Your task to perform on an android device: allow notifications from all sites in the chrome app Image 0: 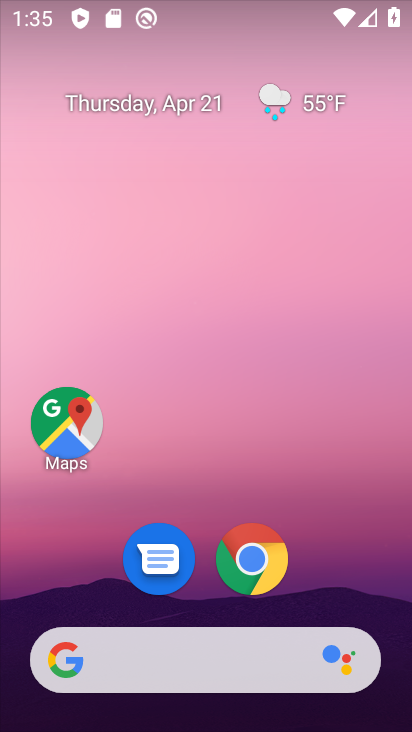
Step 0: click (258, 577)
Your task to perform on an android device: allow notifications from all sites in the chrome app Image 1: 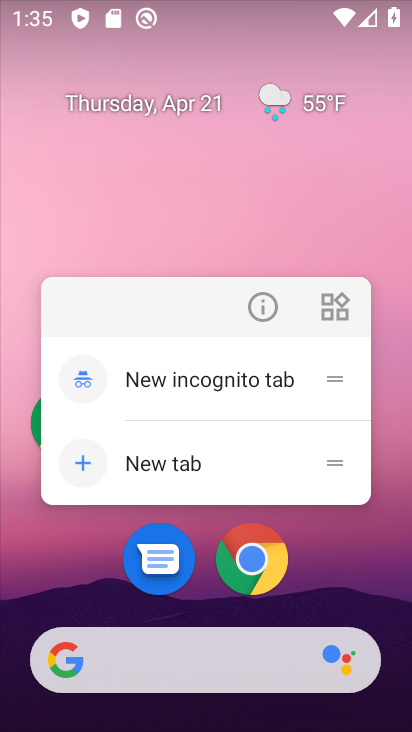
Step 1: click (259, 566)
Your task to perform on an android device: allow notifications from all sites in the chrome app Image 2: 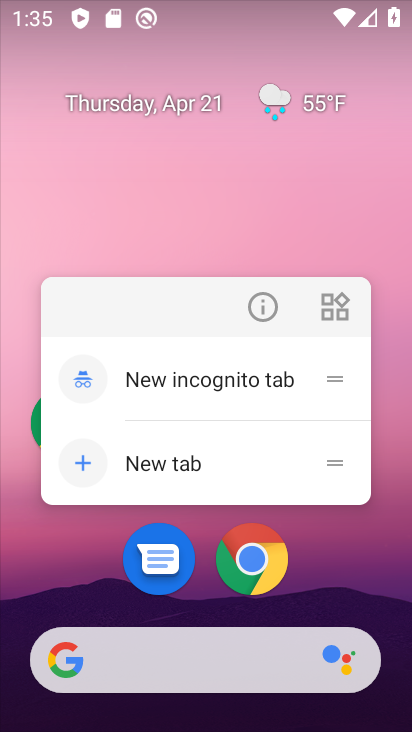
Step 2: click (259, 566)
Your task to perform on an android device: allow notifications from all sites in the chrome app Image 3: 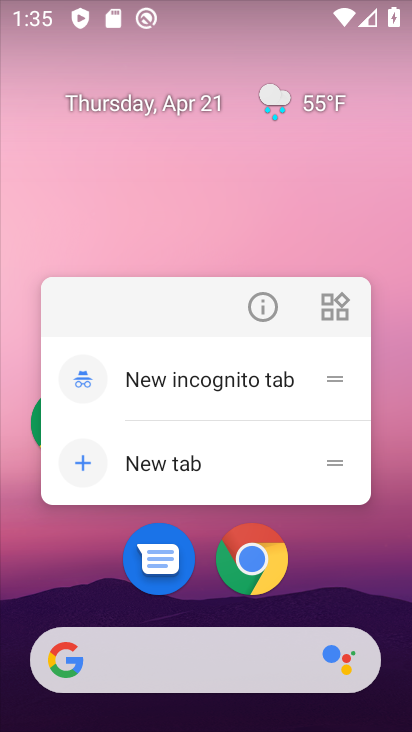
Step 3: click (259, 566)
Your task to perform on an android device: allow notifications from all sites in the chrome app Image 4: 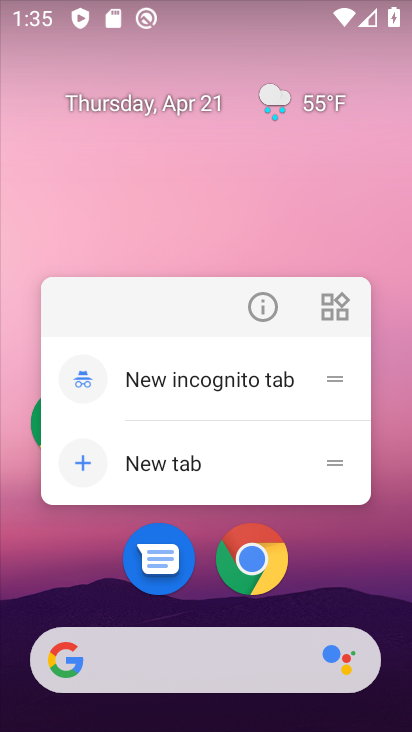
Step 4: click (233, 563)
Your task to perform on an android device: allow notifications from all sites in the chrome app Image 5: 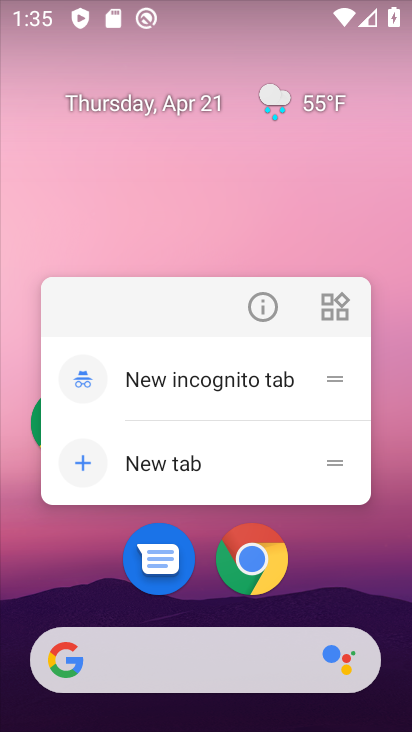
Step 5: click (248, 554)
Your task to perform on an android device: allow notifications from all sites in the chrome app Image 6: 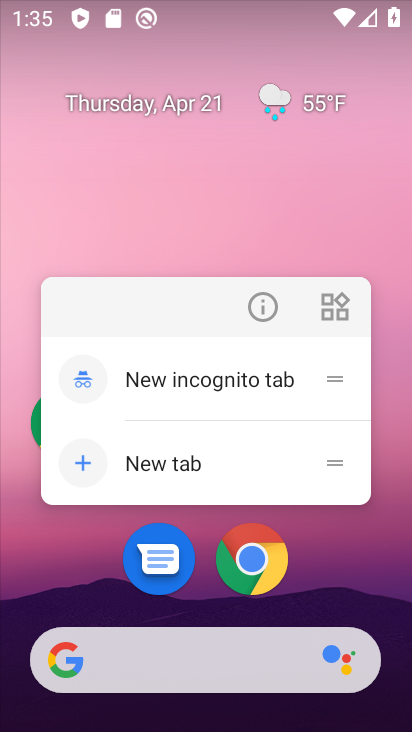
Step 6: click (248, 554)
Your task to perform on an android device: allow notifications from all sites in the chrome app Image 7: 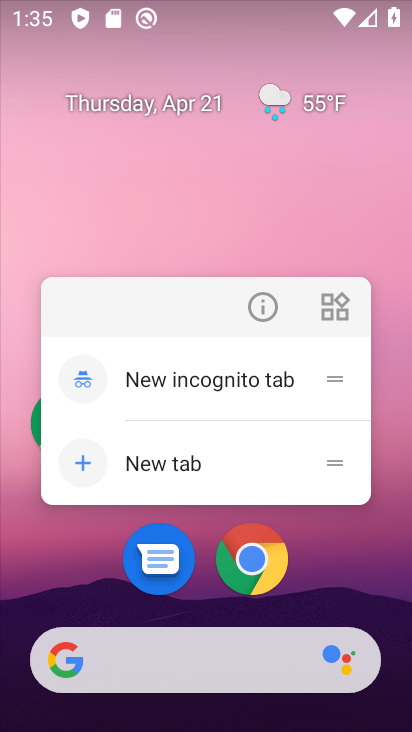
Step 7: click (269, 550)
Your task to perform on an android device: allow notifications from all sites in the chrome app Image 8: 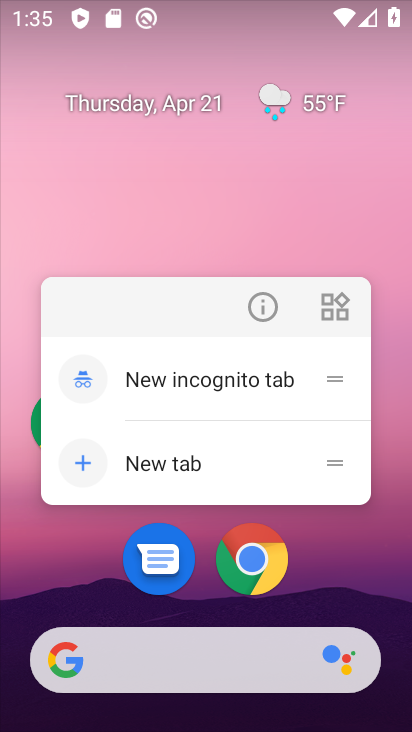
Step 8: click (269, 549)
Your task to perform on an android device: allow notifications from all sites in the chrome app Image 9: 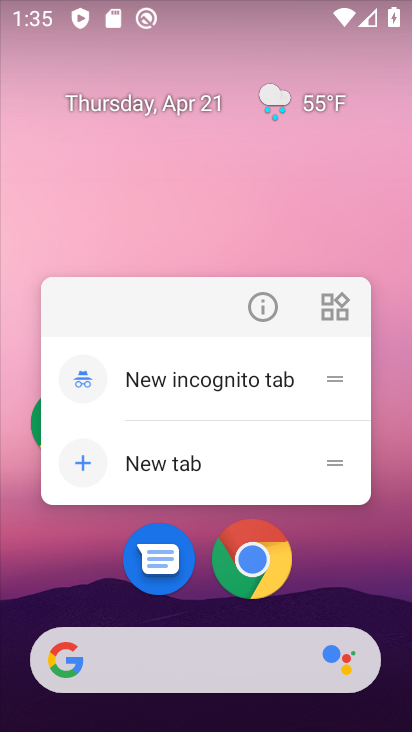
Step 9: click (269, 549)
Your task to perform on an android device: allow notifications from all sites in the chrome app Image 10: 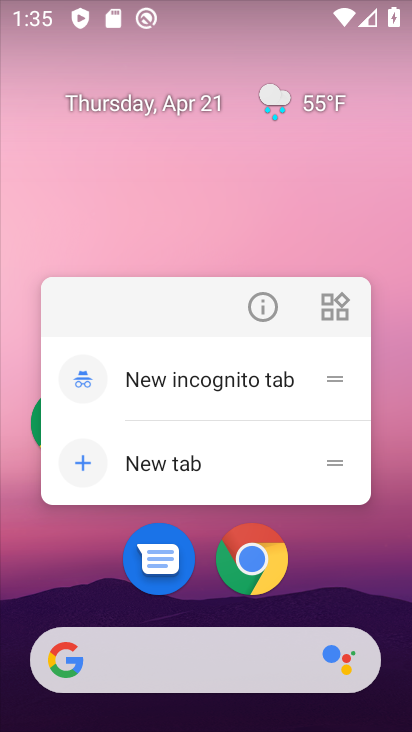
Step 10: click (261, 552)
Your task to perform on an android device: allow notifications from all sites in the chrome app Image 11: 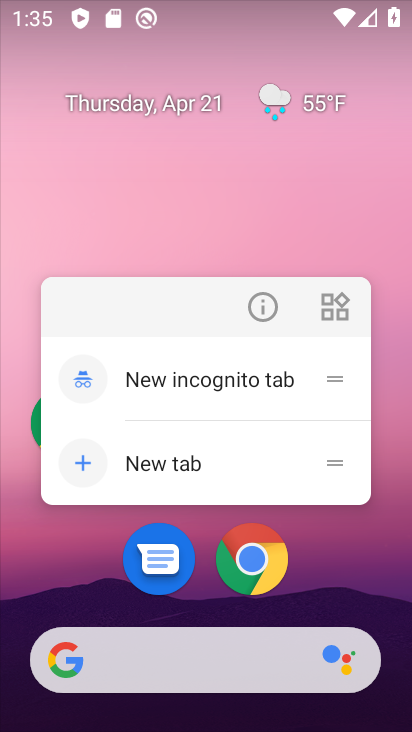
Step 11: drag from (254, 636) to (297, 264)
Your task to perform on an android device: allow notifications from all sites in the chrome app Image 12: 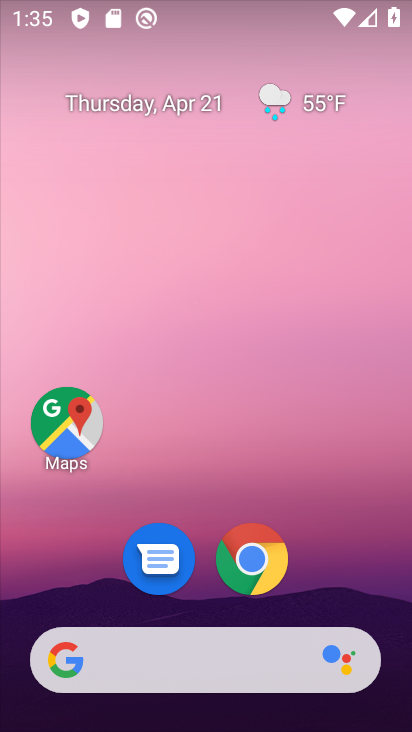
Step 12: drag from (205, 721) to (199, 344)
Your task to perform on an android device: allow notifications from all sites in the chrome app Image 13: 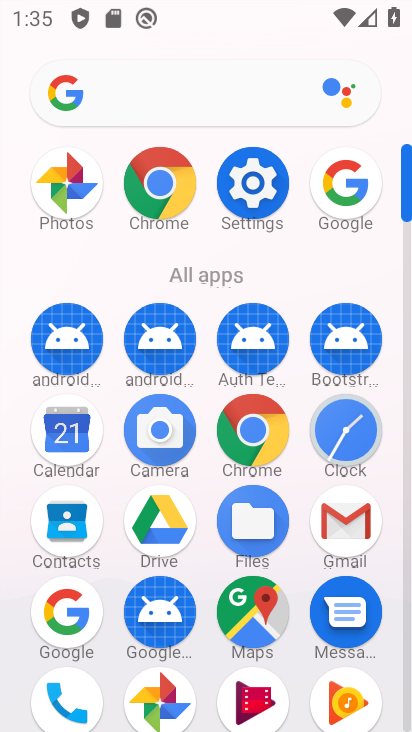
Step 13: click (157, 207)
Your task to perform on an android device: allow notifications from all sites in the chrome app Image 14: 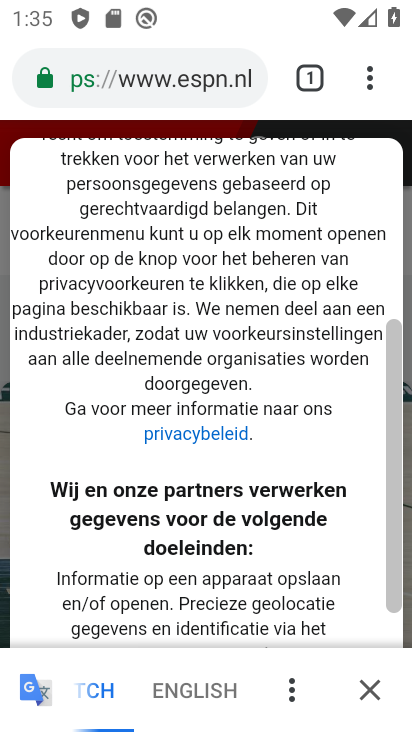
Step 14: click (373, 82)
Your task to perform on an android device: allow notifications from all sites in the chrome app Image 15: 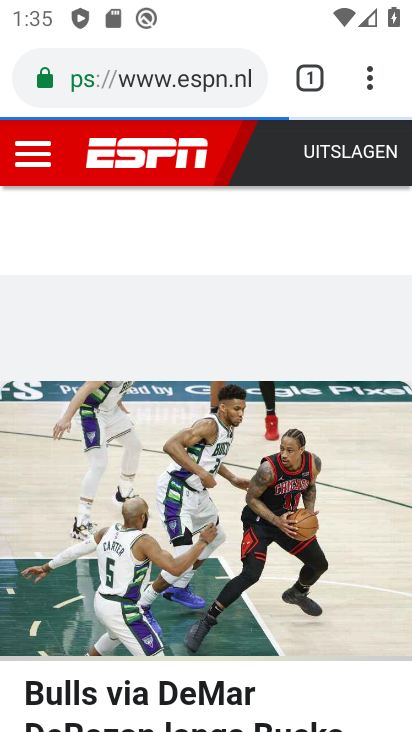
Step 15: click (372, 73)
Your task to perform on an android device: allow notifications from all sites in the chrome app Image 16: 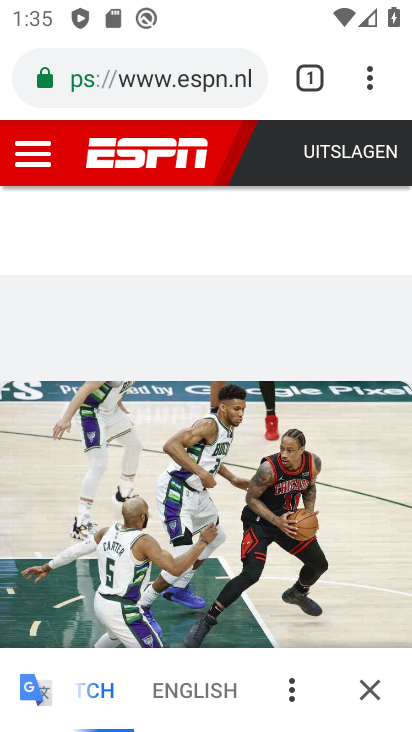
Step 16: click (372, 74)
Your task to perform on an android device: allow notifications from all sites in the chrome app Image 17: 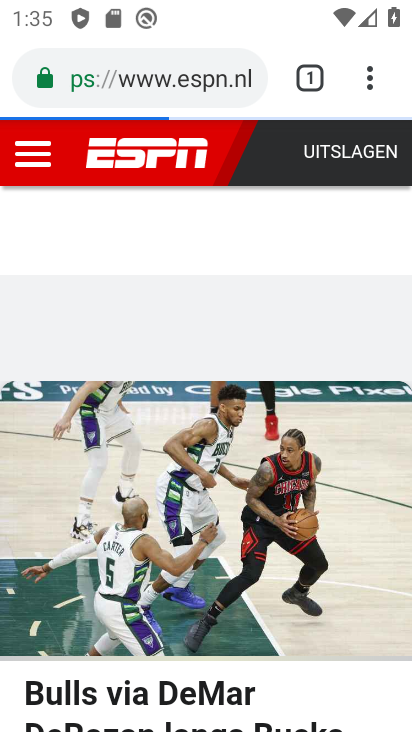
Step 17: click (372, 81)
Your task to perform on an android device: allow notifications from all sites in the chrome app Image 18: 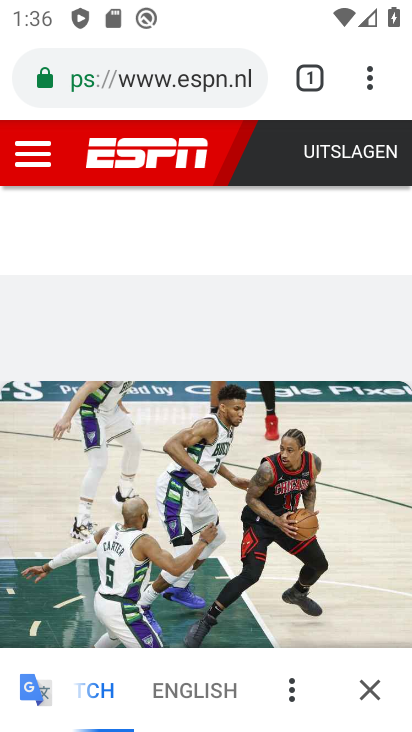
Step 18: click (372, 82)
Your task to perform on an android device: allow notifications from all sites in the chrome app Image 19: 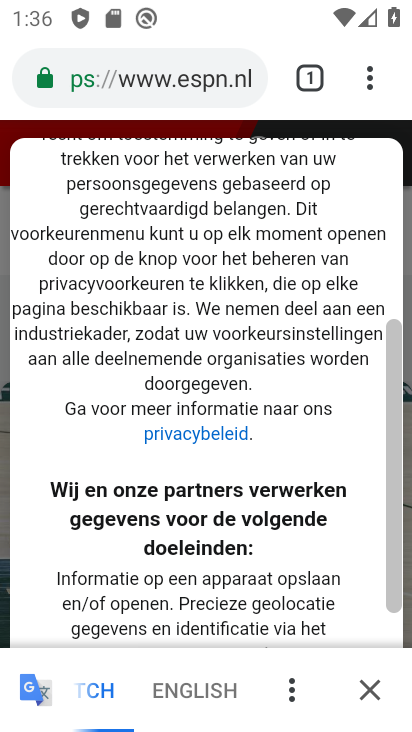
Step 19: click (358, 84)
Your task to perform on an android device: allow notifications from all sites in the chrome app Image 20: 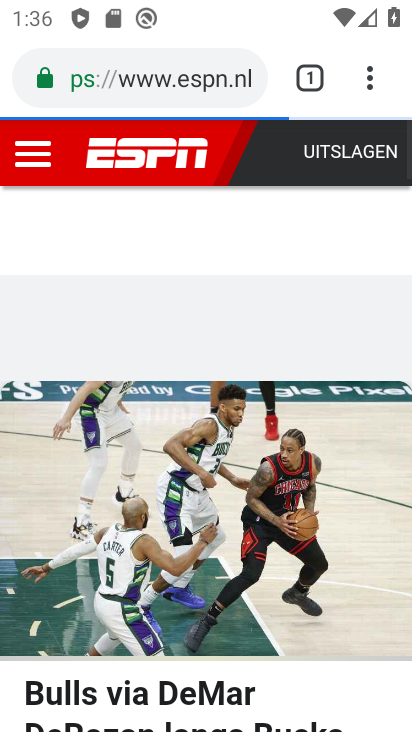
Step 20: drag from (379, 77) to (150, 145)
Your task to perform on an android device: allow notifications from all sites in the chrome app Image 21: 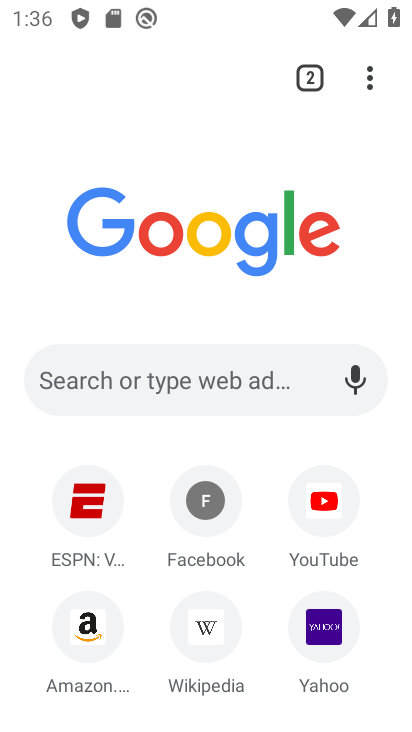
Step 21: click (368, 85)
Your task to perform on an android device: allow notifications from all sites in the chrome app Image 22: 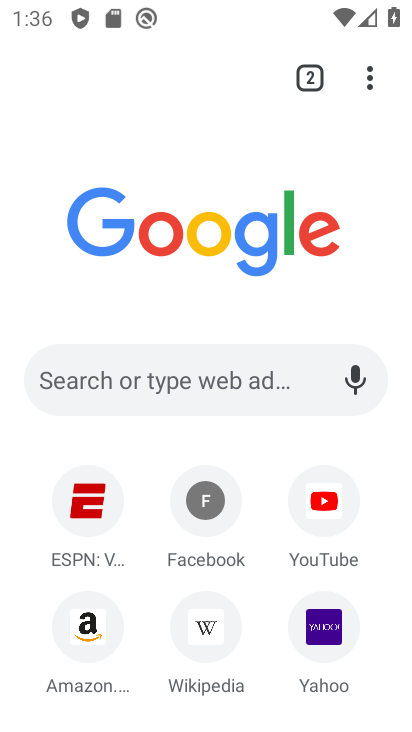
Step 22: click (372, 66)
Your task to perform on an android device: allow notifications from all sites in the chrome app Image 23: 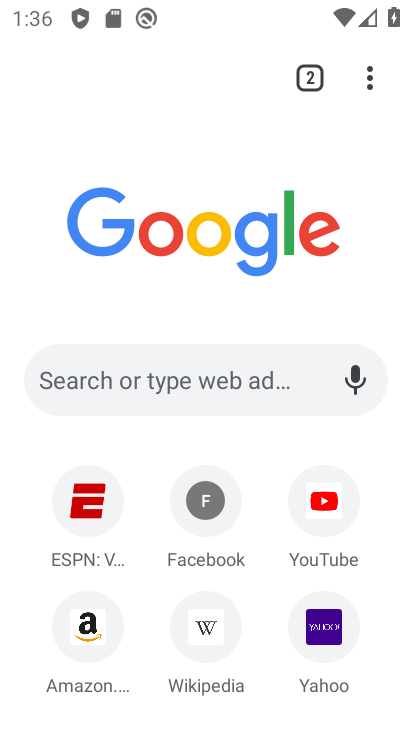
Step 23: drag from (378, 84) to (112, 623)
Your task to perform on an android device: allow notifications from all sites in the chrome app Image 24: 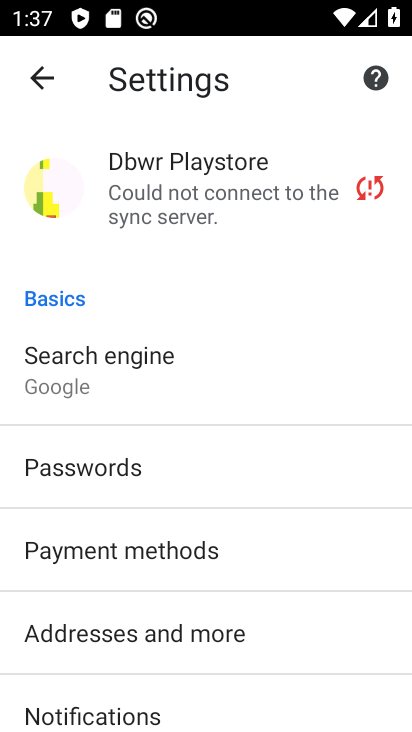
Step 24: click (208, 707)
Your task to perform on an android device: allow notifications from all sites in the chrome app Image 25: 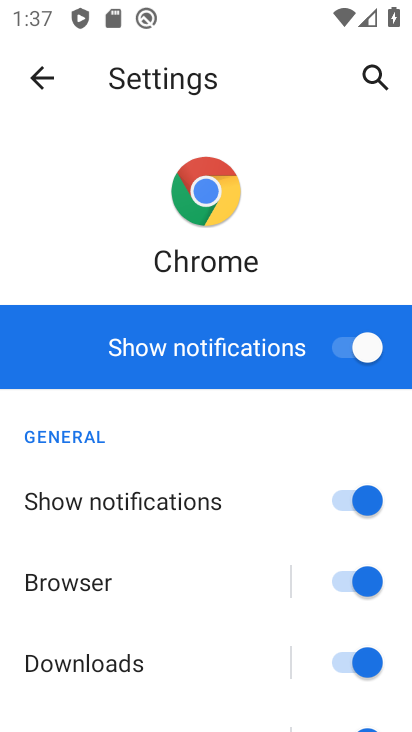
Step 25: task complete